Your task to perform on an android device: check the backup settings in the google photos Image 0: 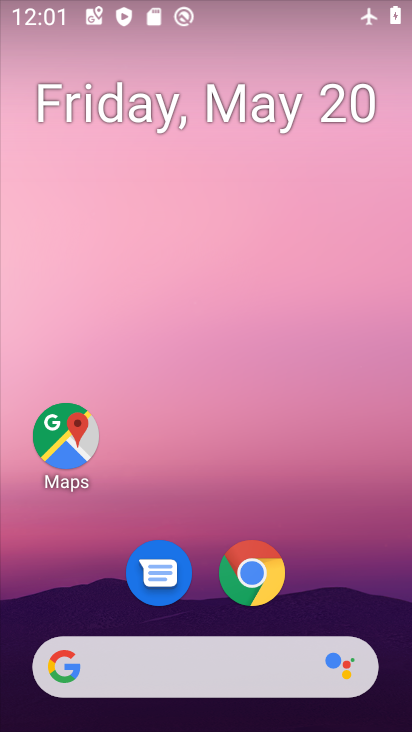
Step 0: drag from (338, 483) to (343, 68)
Your task to perform on an android device: check the backup settings in the google photos Image 1: 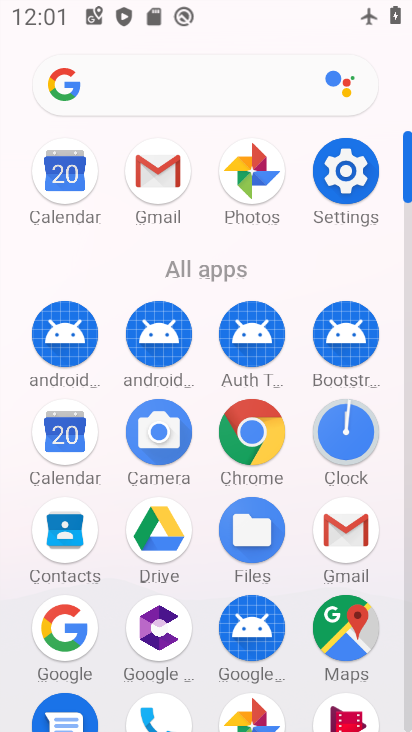
Step 1: click (256, 175)
Your task to perform on an android device: check the backup settings in the google photos Image 2: 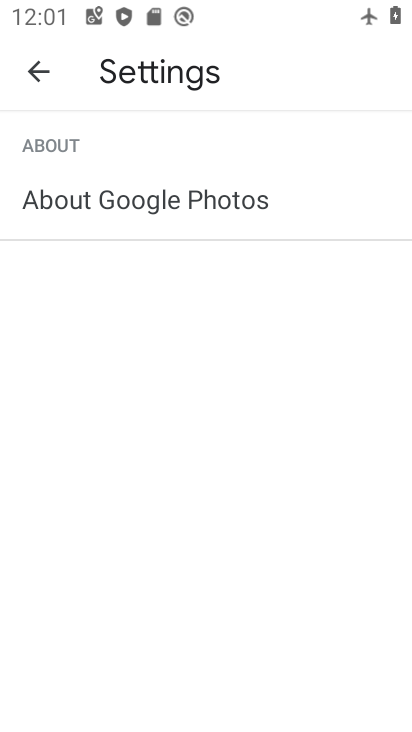
Step 2: press back button
Your task to perform on an android device: check the backup settings in the google photos Image 3: 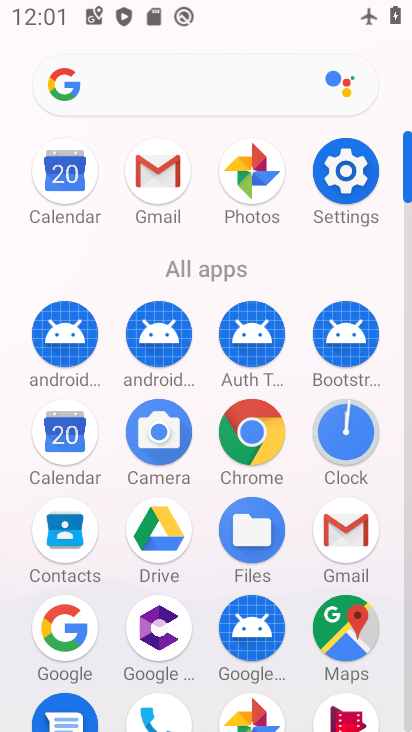
Step 3: click (248, 161)
Your task to perform on an android device: check the backup settings in the google photos Image 4: 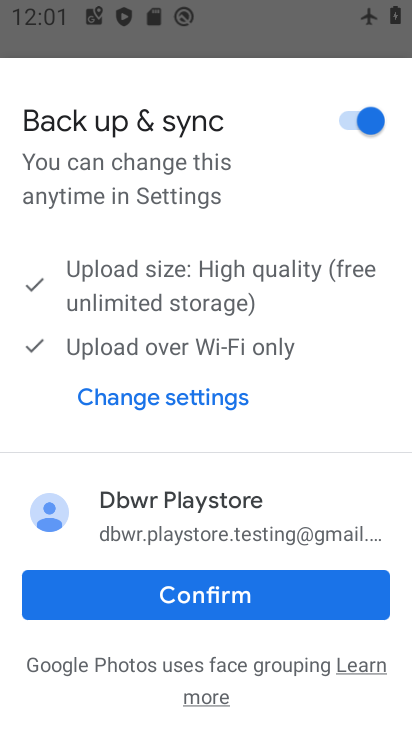
Step 4: click (213, 607)
Your task to perform on an android device: check the backup settings in the google photos Image 5: 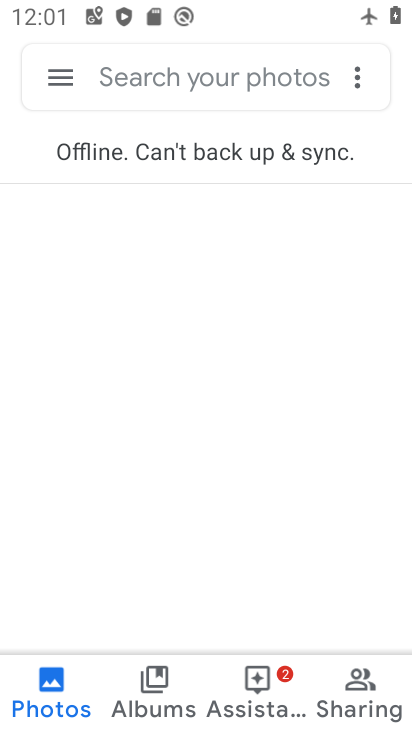
Step 5: click (45, 77)
Your task to perform on an android device: check the backup settings in the google photos Image 6: 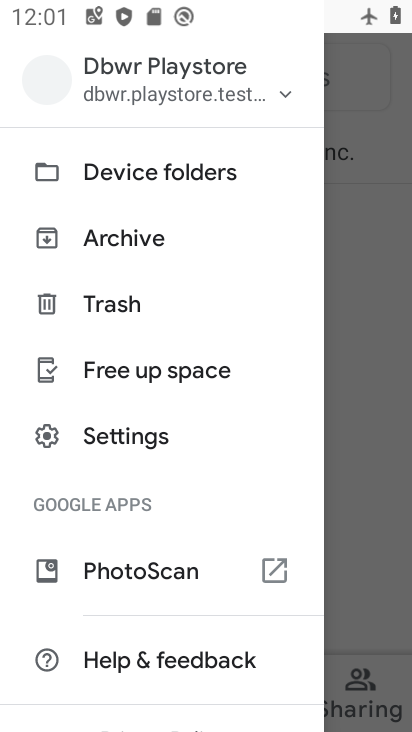
Step 6: click (107, 448)
Your task to perform on an android device: check the backup settings in the google photos Image 7: 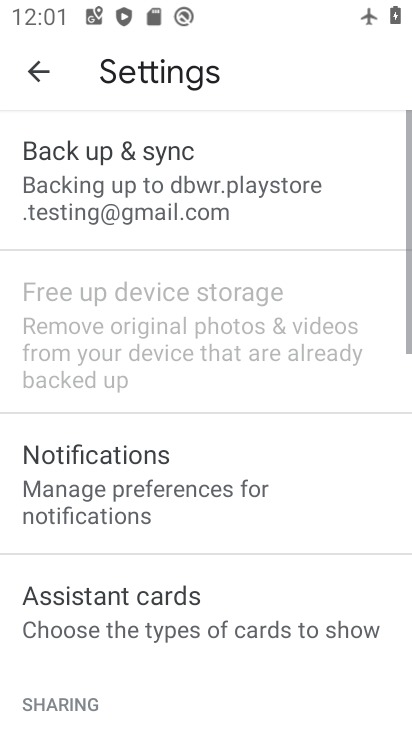
Step 7: click (120, 188)
Your task to perform on an android device: check the backup settings in the google photos Image 8: 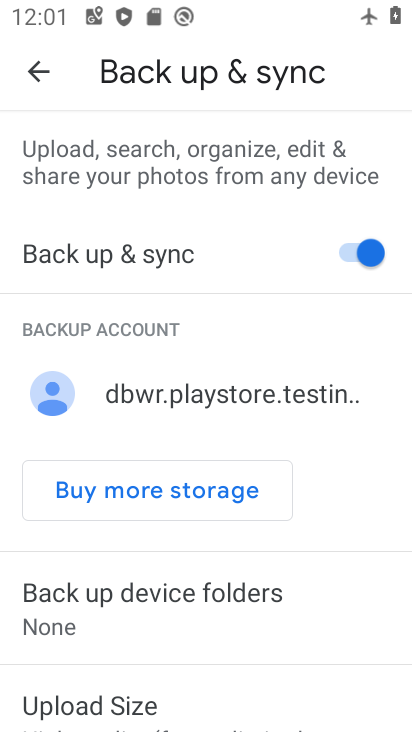
Step 8: task complete